Your task to perform on an android device: Open Yahoo.com Image 0: 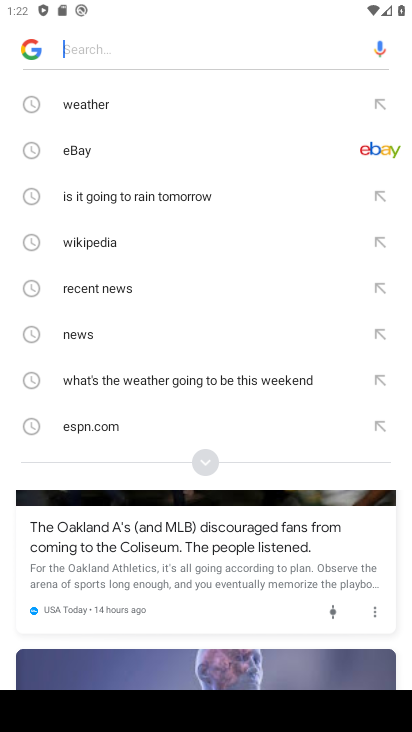
Step 0: type "yahoo.com"
Your task to perform on an android device: Open Yahoo.com Image 1: 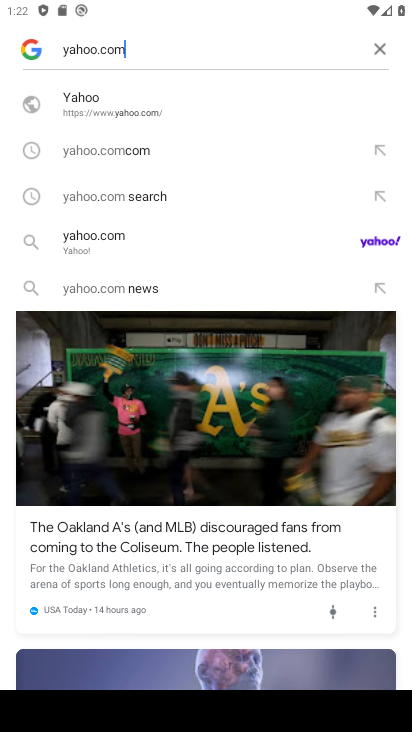
Step 1: click (117, 98)
Your task to perform on an android device: Open Yahoo.com Image 2: 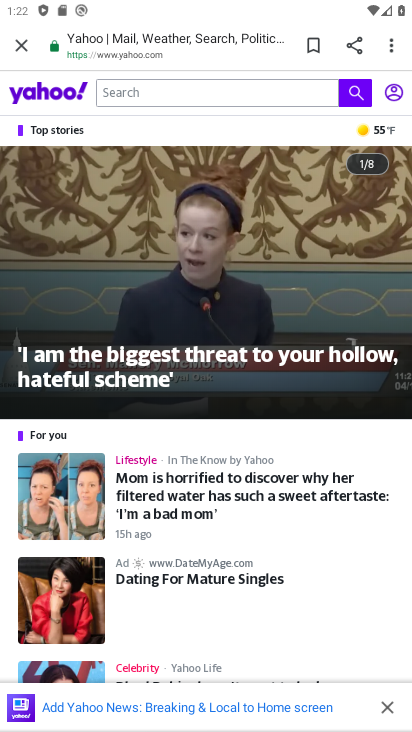
Step 2: task complete